Your task to perform on an android device: turn on showing notifications on the lock screen Image 0: 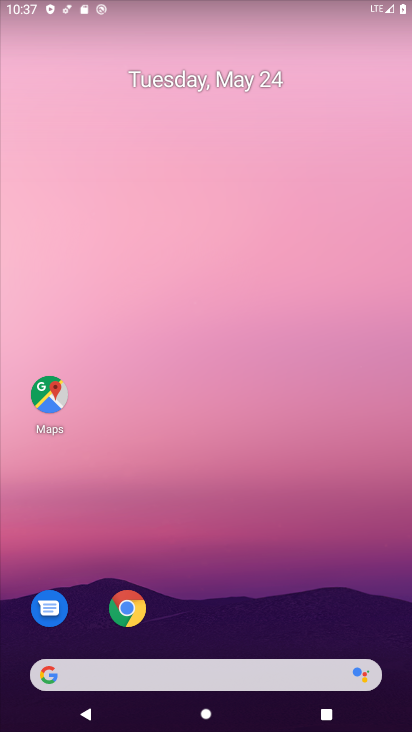
Step 0: drag from (384, 624) to (335, 136)
Your task to perform on an android device: turn on showing notifications on the lock screen Image 1: 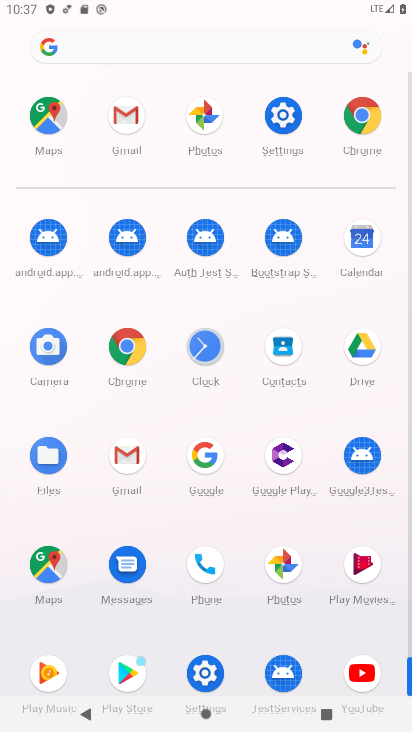
Step 1: click (206, 671)
Your task to perform on an android device: turn on showing notifications on the lock screen Image 2: 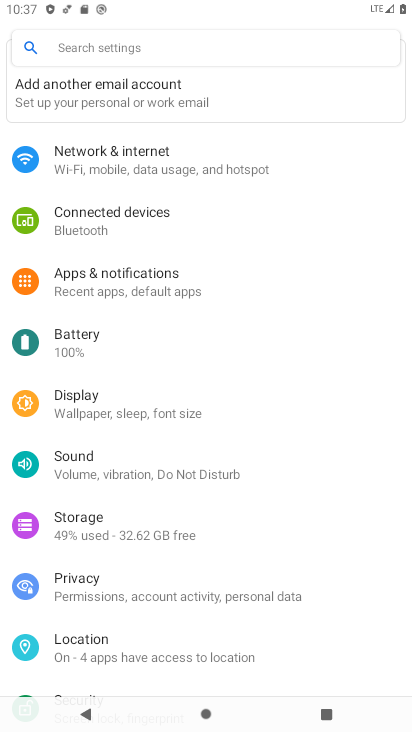
Step 2: click (134, 275)
Your task to perform on an android device: turn on showing notifications on the lock screen Image 3: 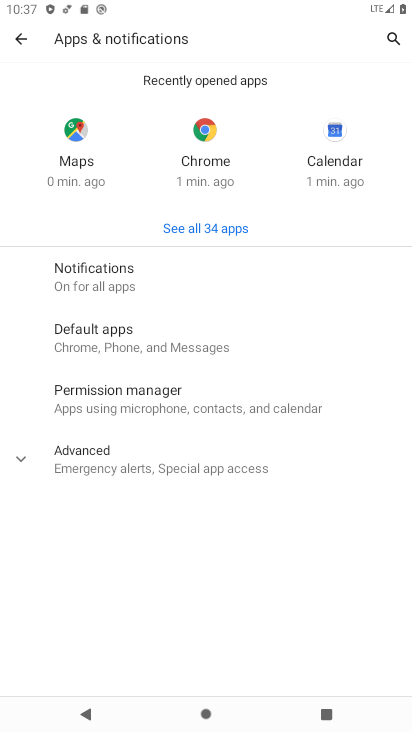
Step 3: click (103, 259)
Your task to perform on an android device: turn on showing notifications on the lock screen Image 4: 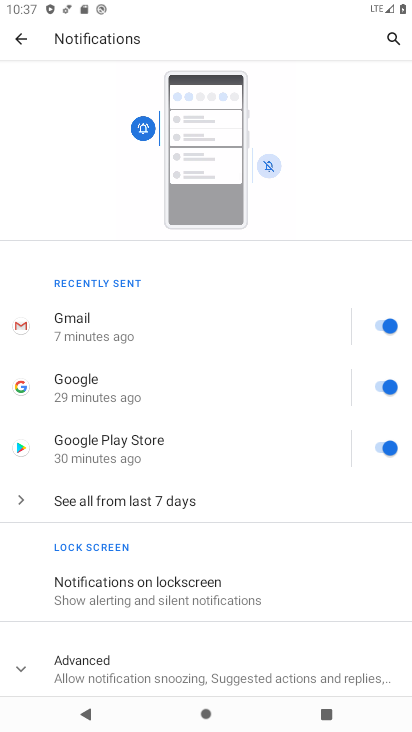
Step 4: click (132, 575)
Your task to perform on an android device: turn on showing notifications on the lock screen Image 5: 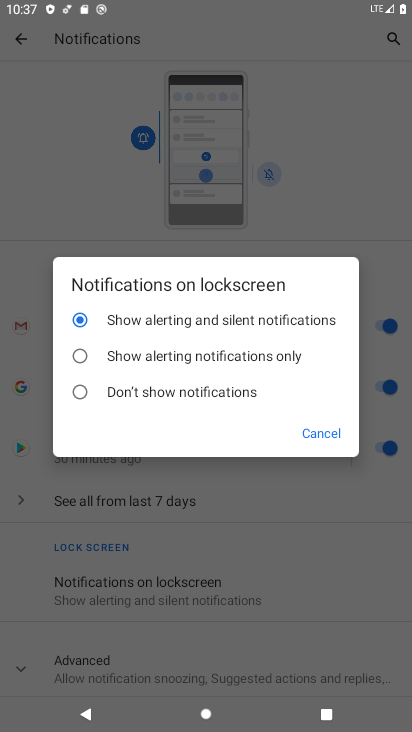
Step 5: task complete